Your task to perform on an android device: What's the weather? Image 0: 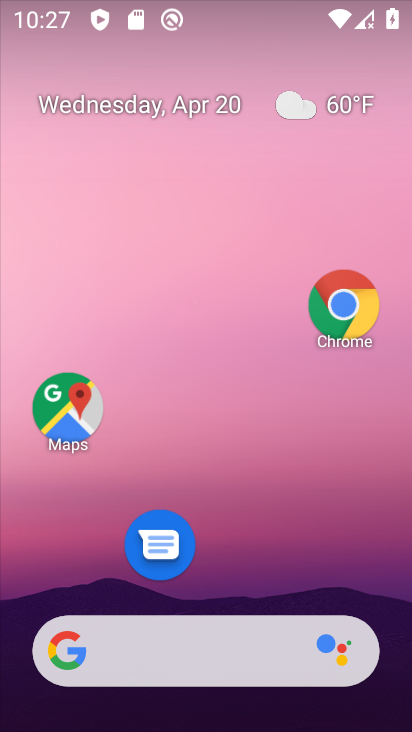
Step 0: drag from (222, 607) to (235, 391)
Your task to perform on an android device: What's the weather? Image 1: 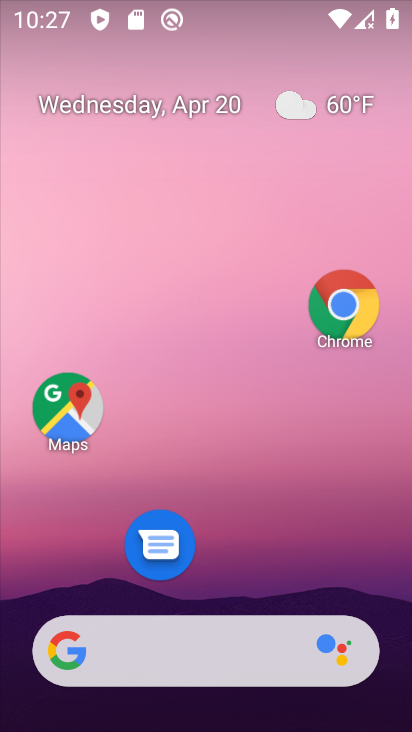
Step 1: drag from (243, 481) to (264, 67)
Your task to perform on an android device: What's the weather? Image 2: 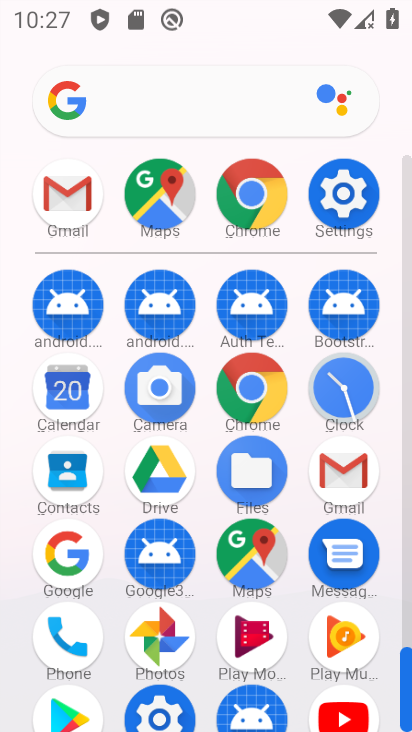
Step 2: click (74, 552)
Your task to perform on an android device: What's the weather? Image 3: 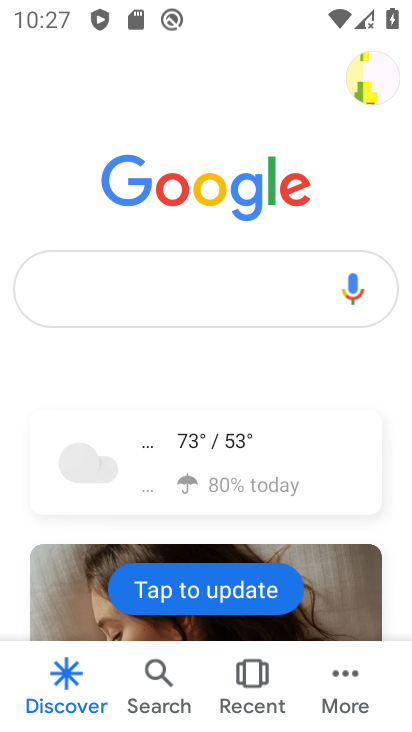
Step 3: click (206, 291)
Your task to perform on an android device: What's the weather? Image 4: 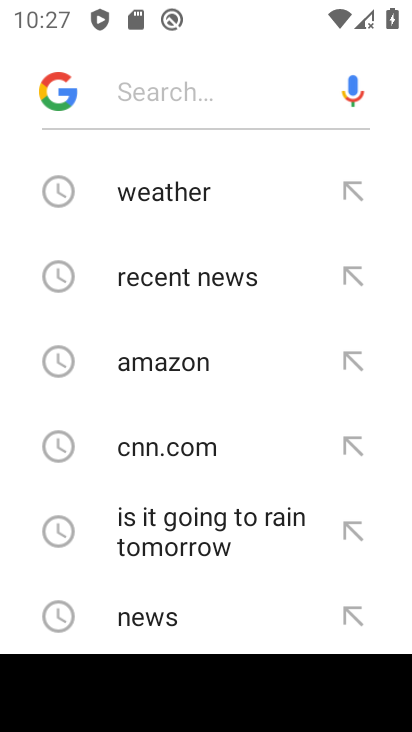
Step 4: click (222, 193)
Your task to perform on an android device: What's the weather? Image 5: 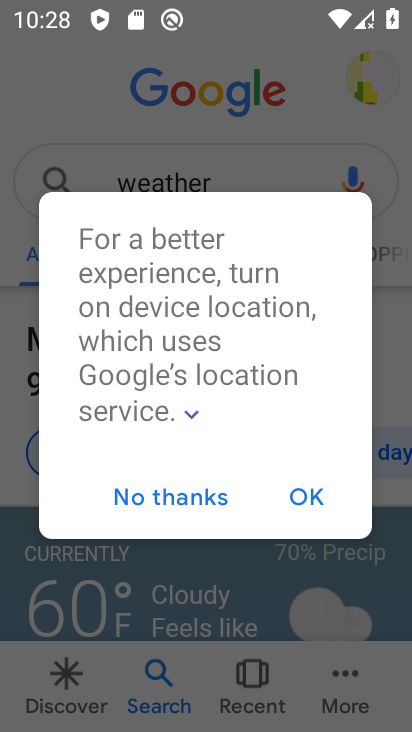
Step 5: click (306, 499)
Your task to perform on an android device: What's the weather? Image 6: 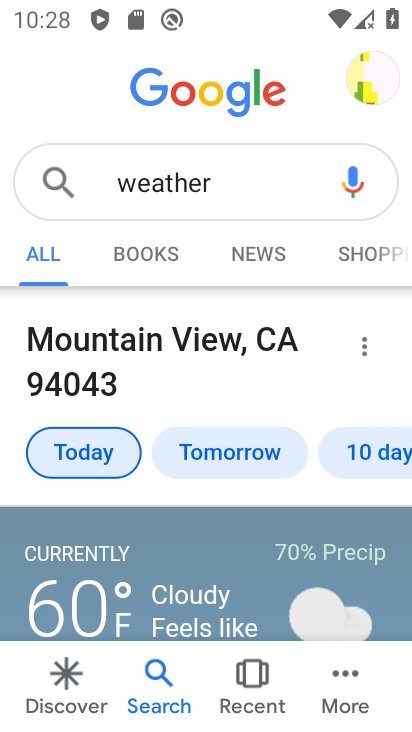
Step 6: task complete